Your task to perform on an android device: turn off javascript in the chrome app Image 0: 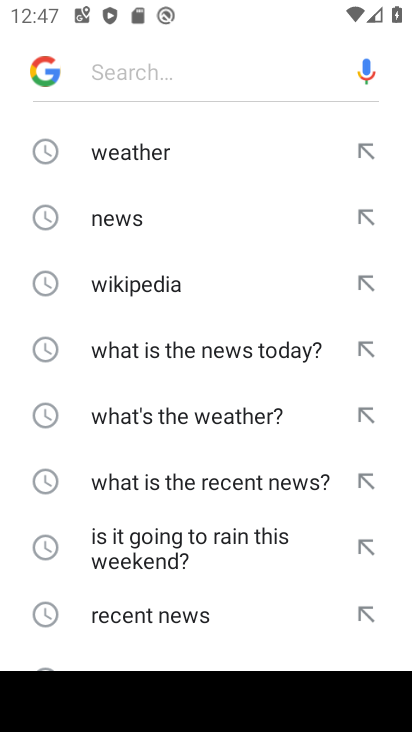
Step 0: press back button
Your task to perform on an android device: turn off javascript in the chrome app Image 1: 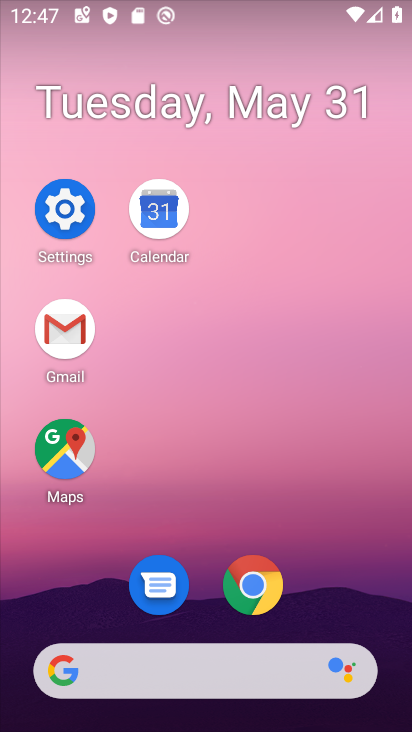
Step 1: click (246, 583)
Your task to perform on an android device: turn off javascript in the chrome app Image 2: 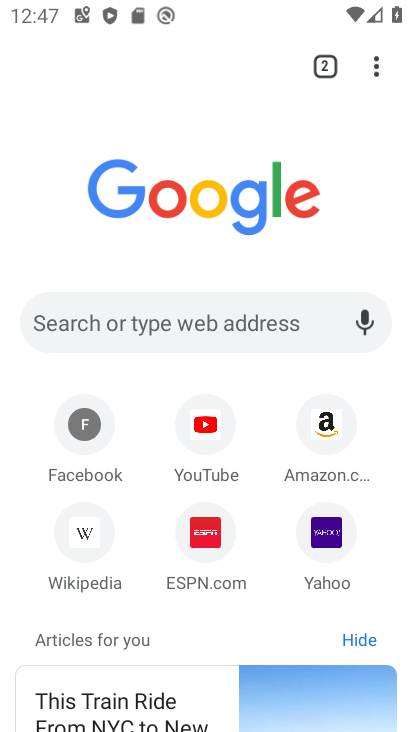
Step 2: click (378, 62)
Your task to perform on an android device: turn off javascript in the chrome app Image 3: 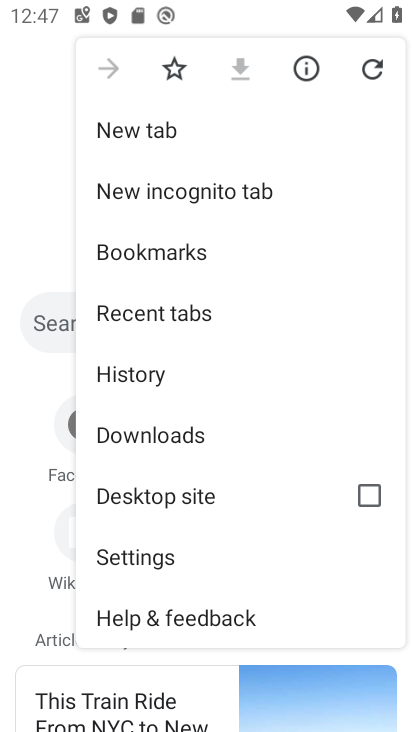
Step 3: drag from (338, 488) to (302, 31)
Your task to perform on an android device: turn off javascript in the chrome app Image 4: 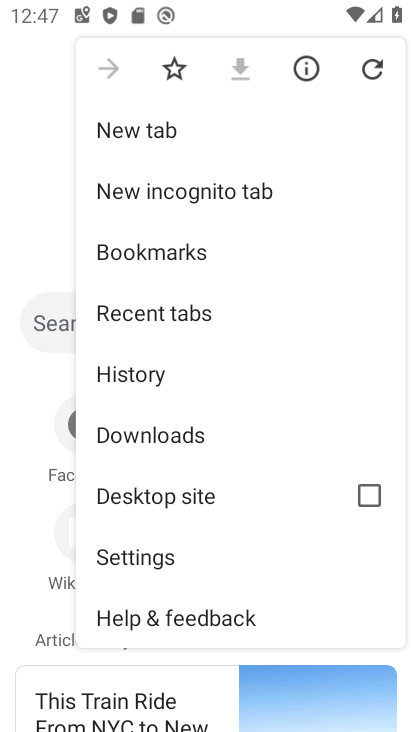
Step 4: click (182, 535)
Your task to perform on an android device: turn off javascript in the chrome app Image 5: 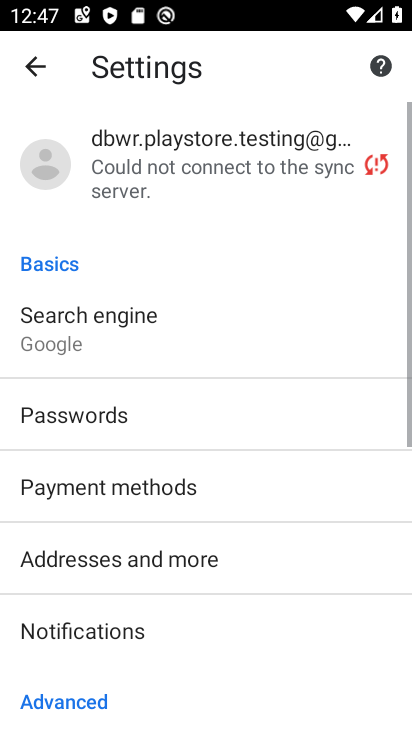
Step 5: drag from (182, 535) to (227, 106)
Your task to perform on an android device: turn off javascript in the chrome app Image 6: 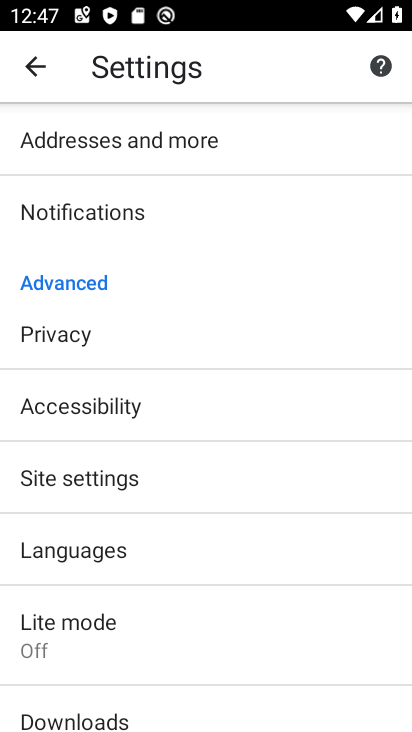
Step 6: click (146, 476)
Your task to perform on an android device: turn off javascript in the chrome app Image 7: 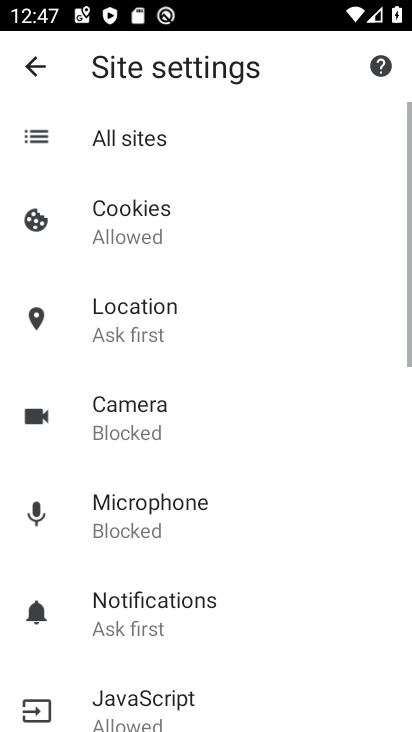
Step 7: drag from (158, 622) to (229, 234)
Your task to perform on an android device: turn off javascript in the chrome app Image 8: 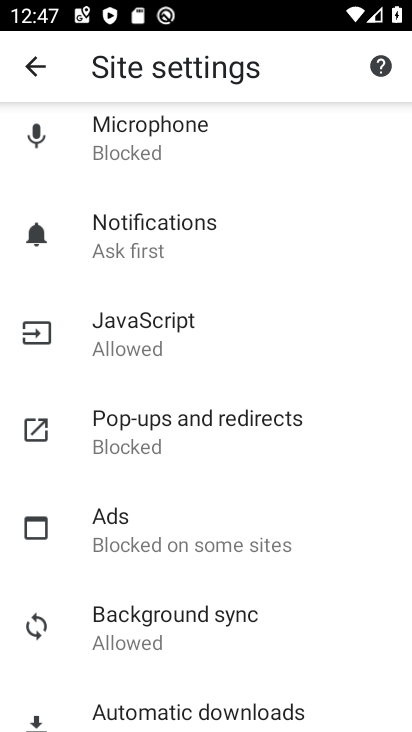
Step 8: click (178, 320)
Your task to perform on an android device: turn off javascript in the chrome app Image 9: 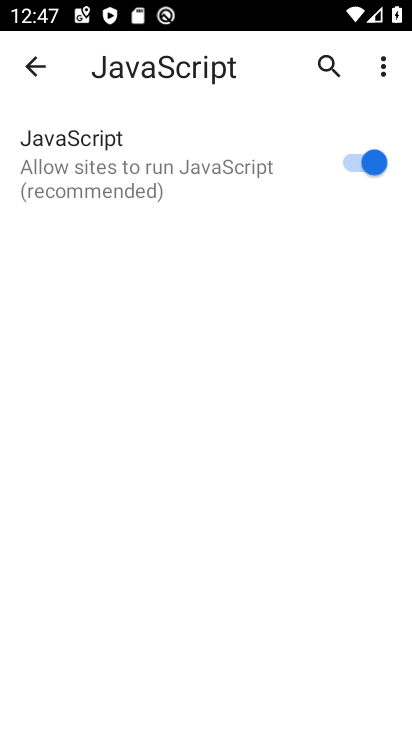
Step 9: click (371, 145)
Your task to perform on an android device: turn off javascript in the chrome app Image 10: 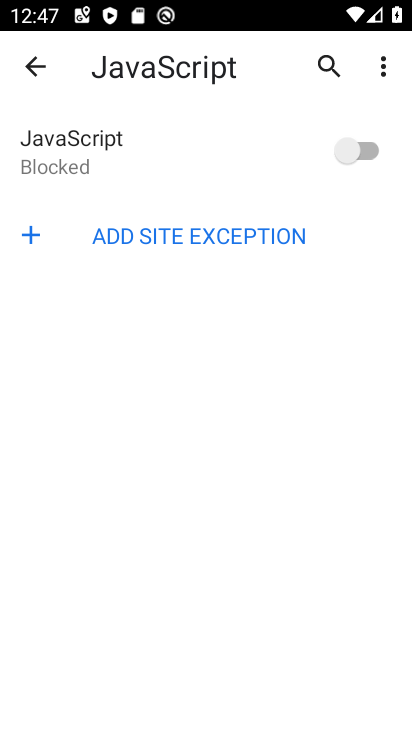
Step 10: task complete